Your task to perform on an android device: What's the time in San Francisco? Image 0: 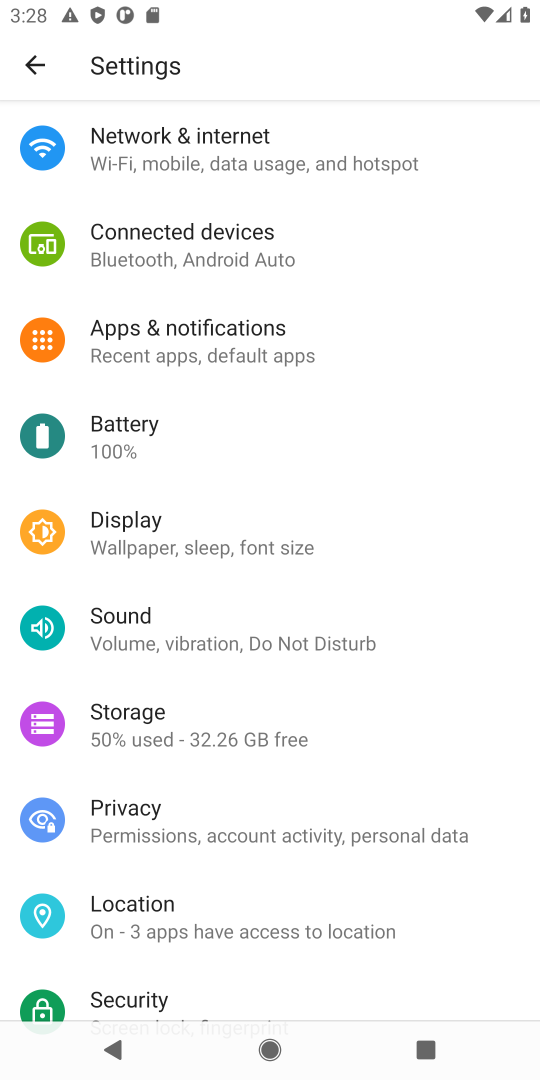
Step 0: press home button
Your task to perform on an android device: What's the time in San Francisco? Image 1: 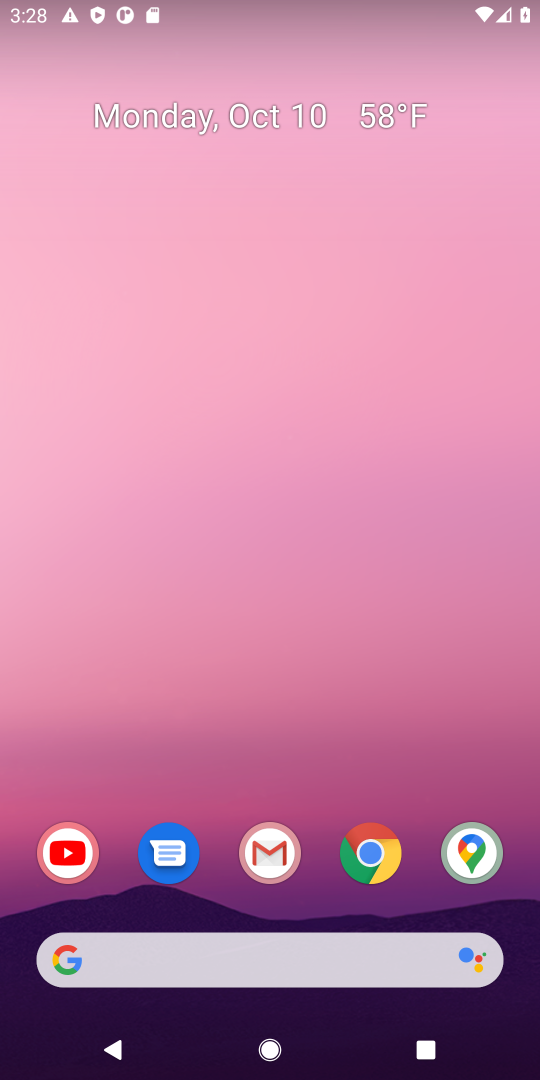
Step 1: click (176, 957)
Your task to perform on an android device: What's the time in San Francisco? Image 2: 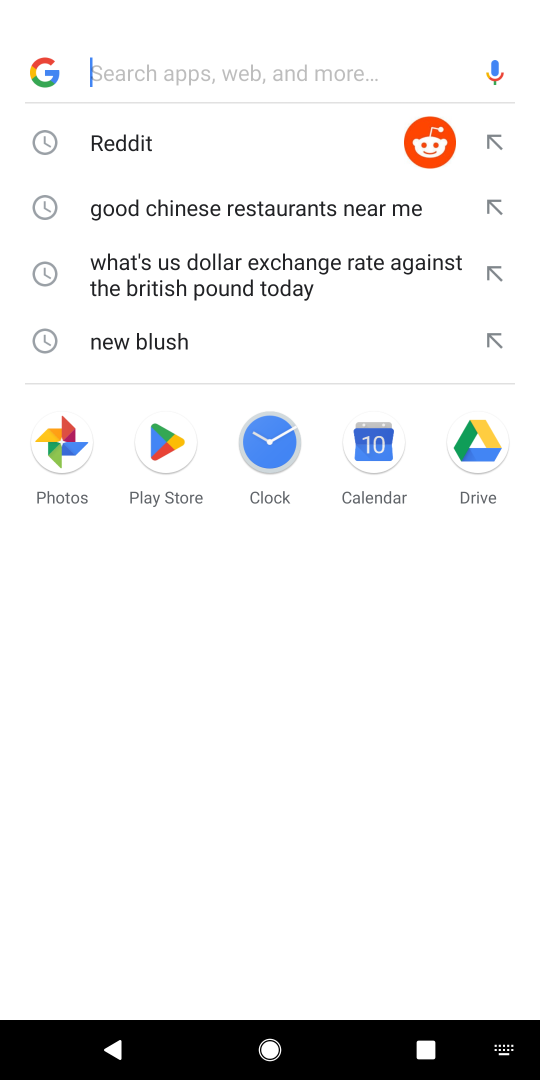
Step 2: click (191, 63)
Your task to perform on an android device: What's the time in San Francisco? Image 3: 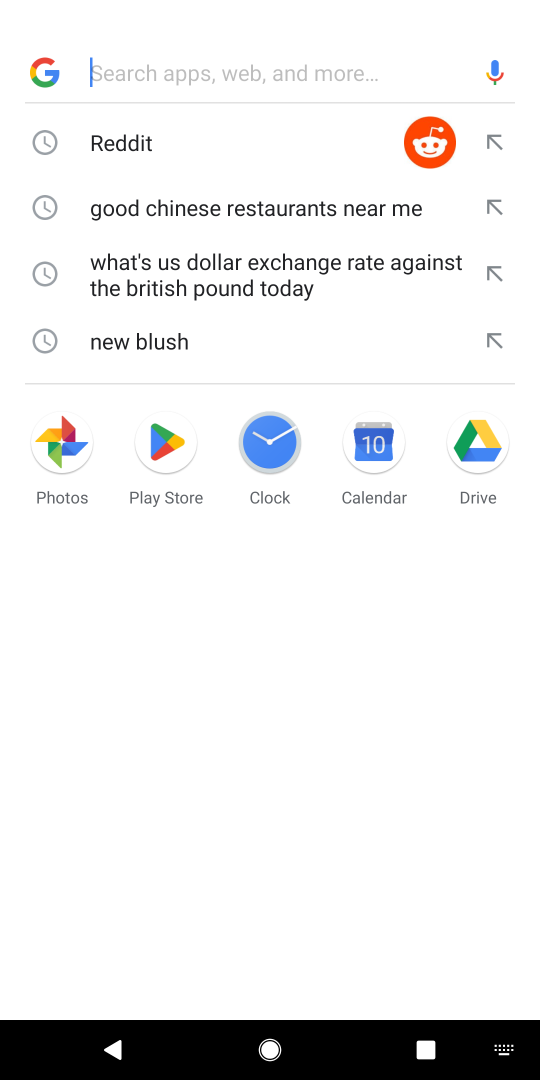
Step 3: type "time in San Francisco?"
Your task to perform on an android device: What's the time in San Francisco? Image 4: 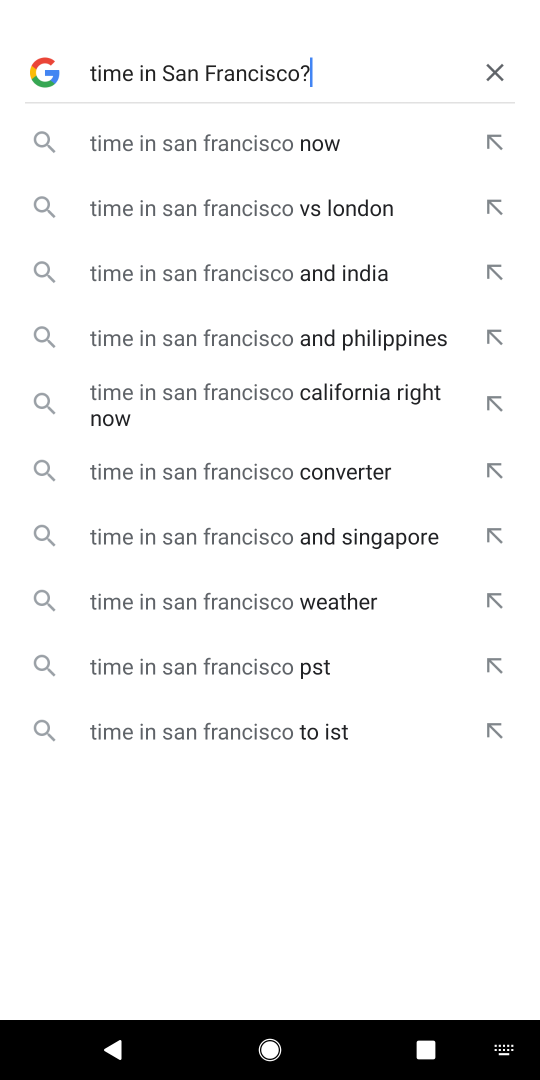
Step 4: click (250, 147)
Your task to perform on an android device: What's the time in San Francisco? Image 5: 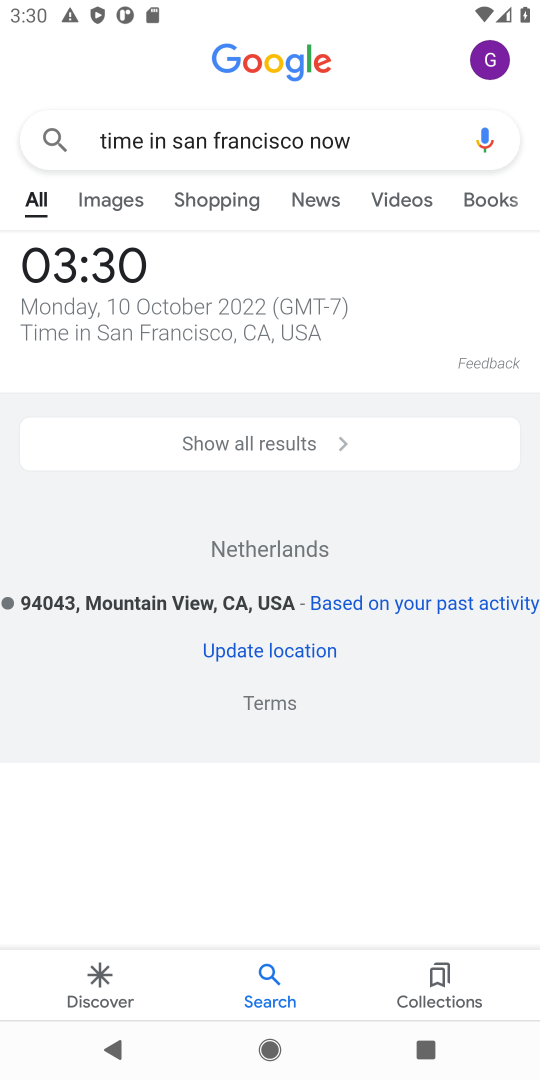
Step 5: task complete